Your task to perform on an android device: show emergency info Image 0: 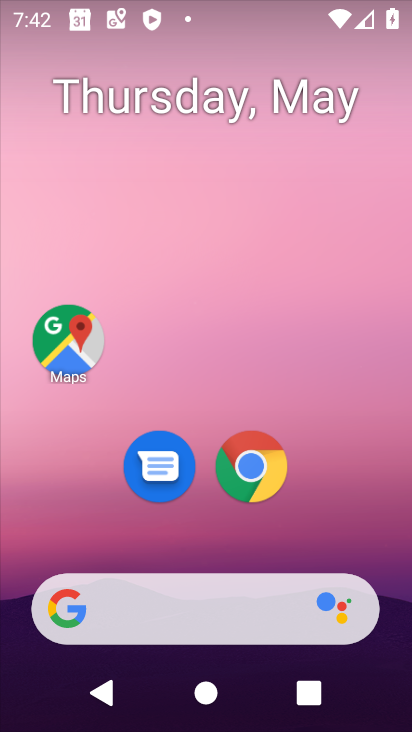
Step 0: drag from (337, 520) to (238, 36)
Your task to perform on an android device: show emergency info Image 1: 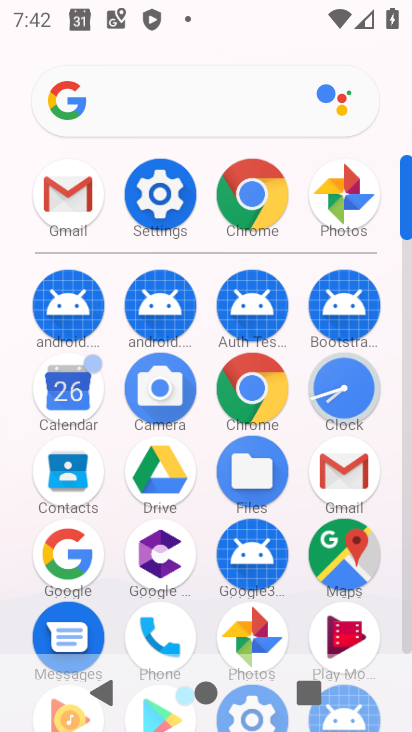
Step 1: click (173, 191)
Your task to perform on an android device: show emergency info Image 2: 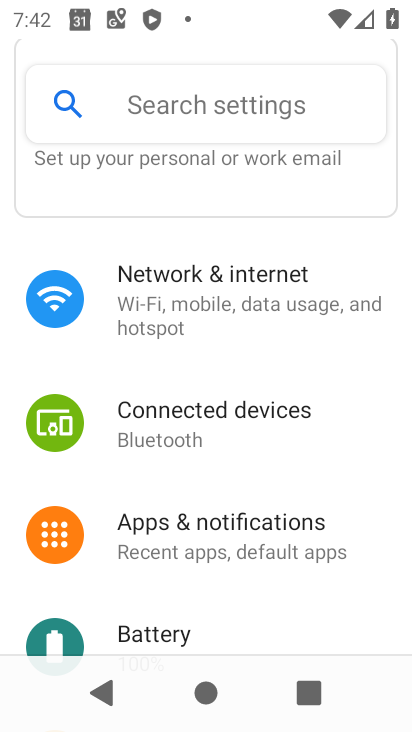
Step 2: drag from (258, 579) to (237, 130)
Your task to perform on an android device: show emergency info Image 3: 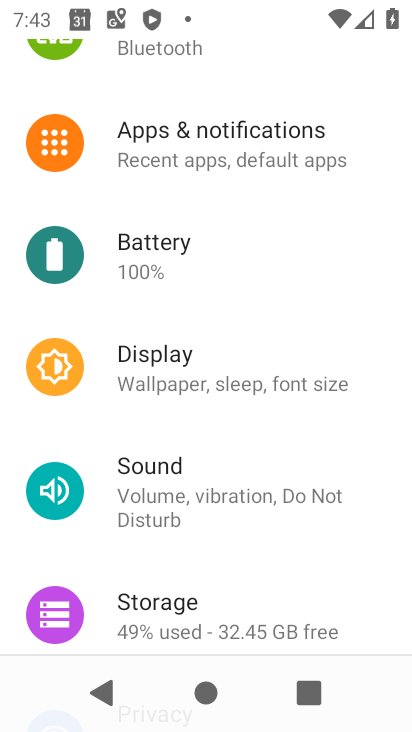
Step 3: drag from (268, 553) to (221, 315)
Your task to perform on an android device: show emergency info Image 4: 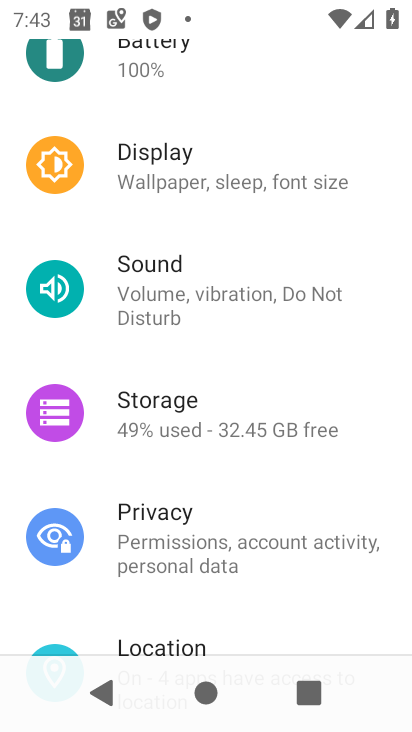
Step 4: drag from (220, 618) to (191, 291)
Your task to perform on an android device: show emergency info Image 5: 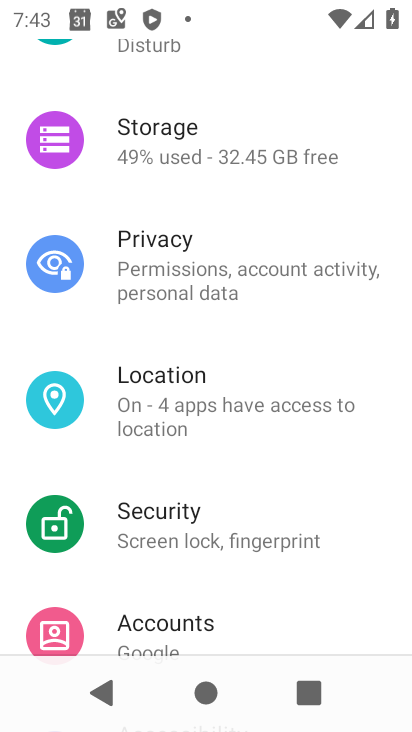
Step 5: drag from (227, 570) to (210, 340)
Your task to perform on an android device: show emergency info Image 6: 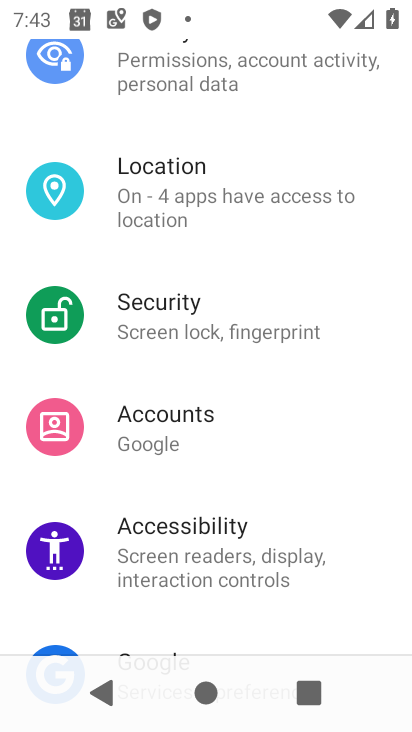
Step 6: drag from (248, 471) to (238, 192)
Your task to perform on an android device: show emergency info Image 7: 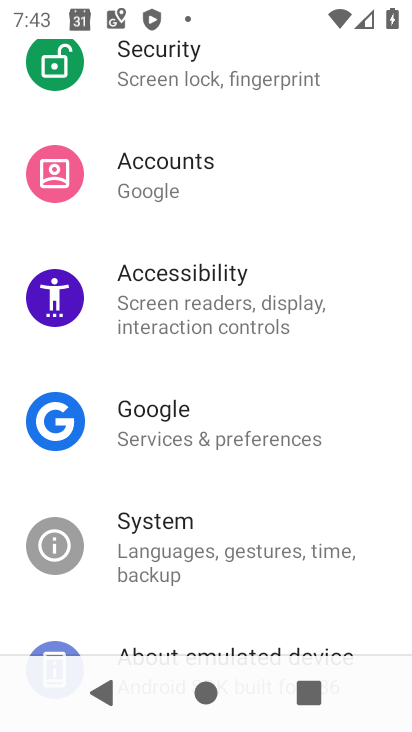
Step 7: drag from (230, 598) to (217, 336)
Your task to perform on an android device: show emergency info Image 8: 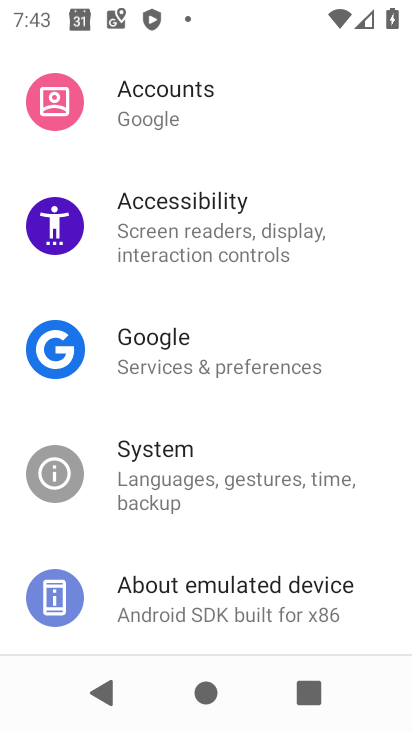
Step 8: click (208, 590)
Your task to perform on an android device: show emergency info Image 9: 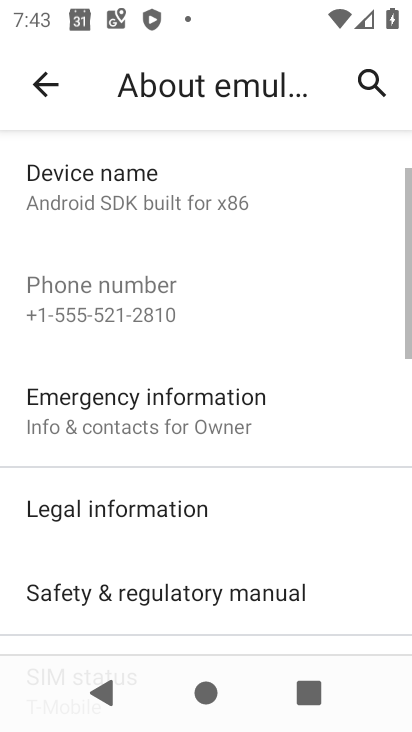
Step 9: click (156, 402)
Your task to perform on an android device: show emergency info Image 10: 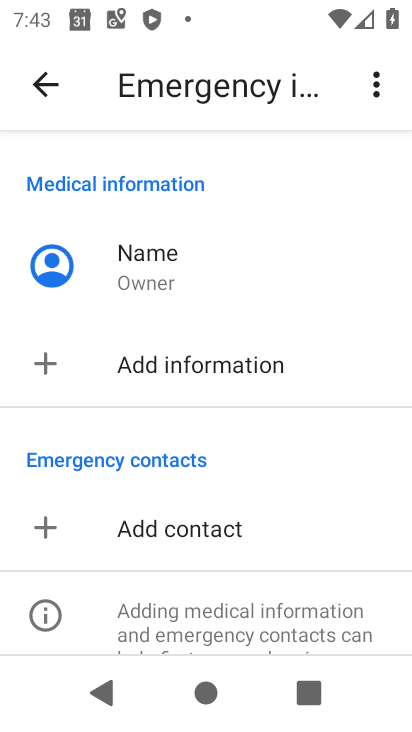
Step 10: task complete